Your task to perform on an android device: Go to Wikipedia Image 0: 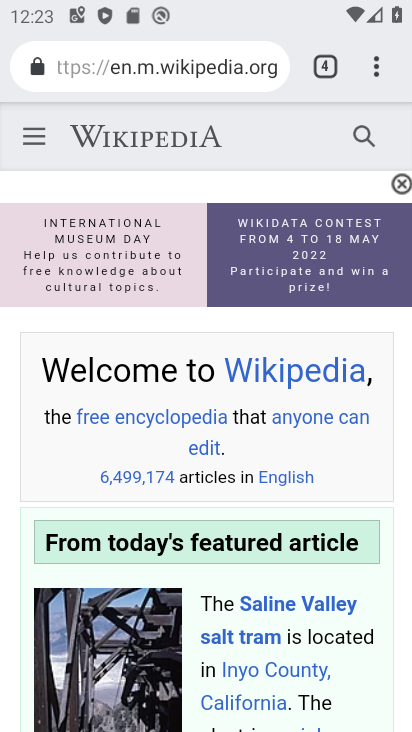
Step 0: press home button
Your task to perform on an android device: Go to Wikipedia Image 1: 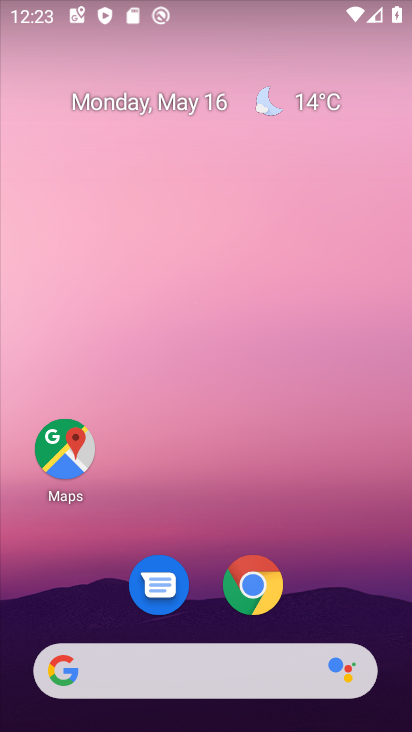
Step 1: click (251, 587)
Your task to perform on an android device: Go to Wikipedia Image 2: 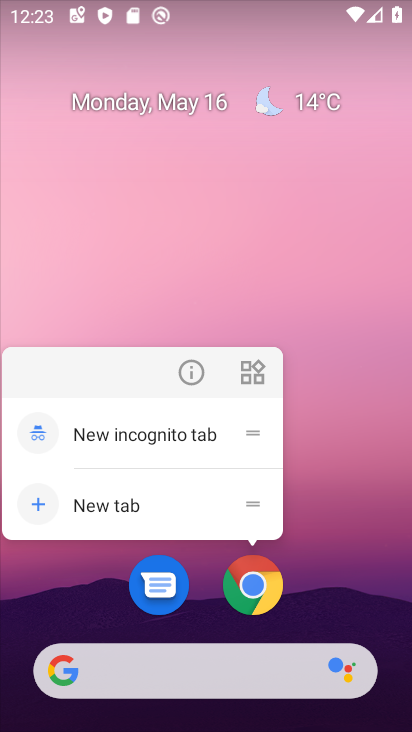
Step 2: click (249, 579)
Your task to perform on an android device: Go to Wikipedia Image 3: 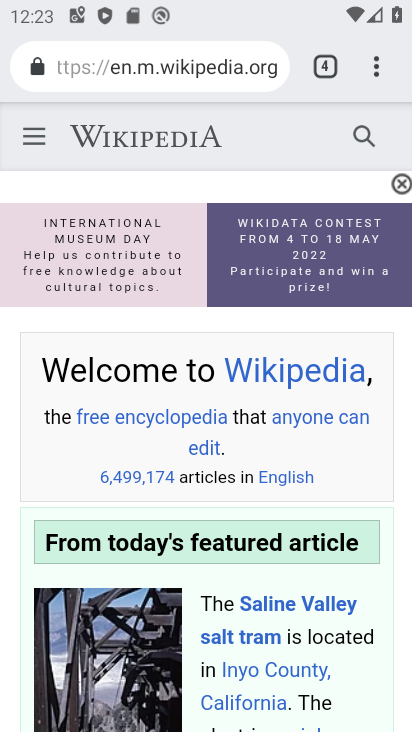
Step 3: task complete